Your task to perform on an android device: Open Google Chrome Image 0: 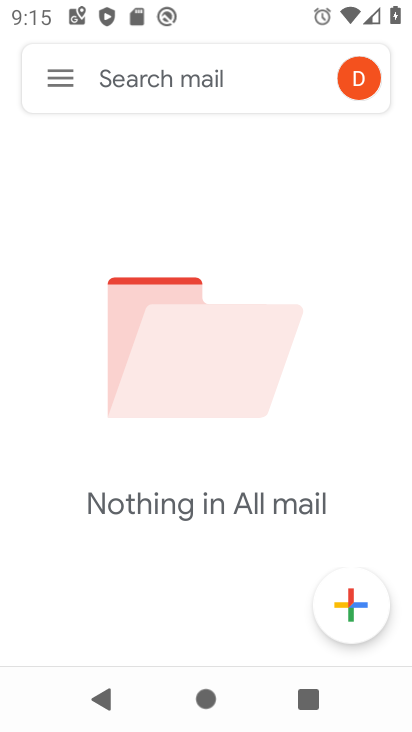
Step 0: press home button
Your task to perform on an android device: Open Google Chrome Image 1: 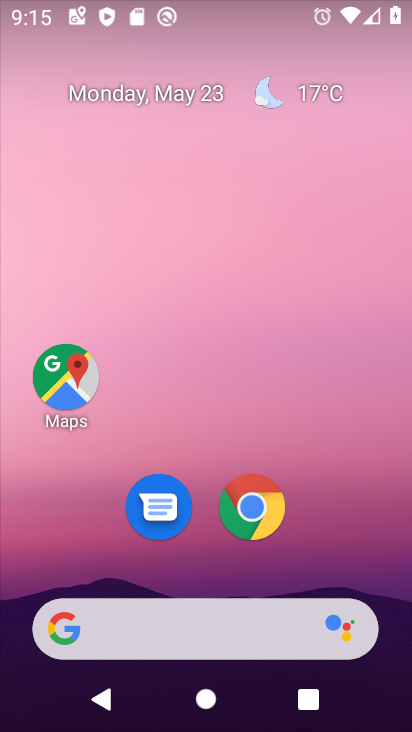
Step 1: click (261, 509)
Your task to perform on an android device: Open Google Chrome Image 2: 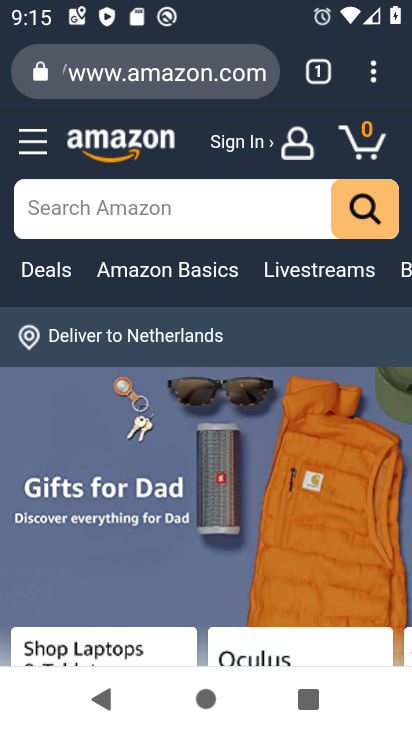
Step 2: task complete